Your task to perform on an android device: find photos in the google photos app Image 0: 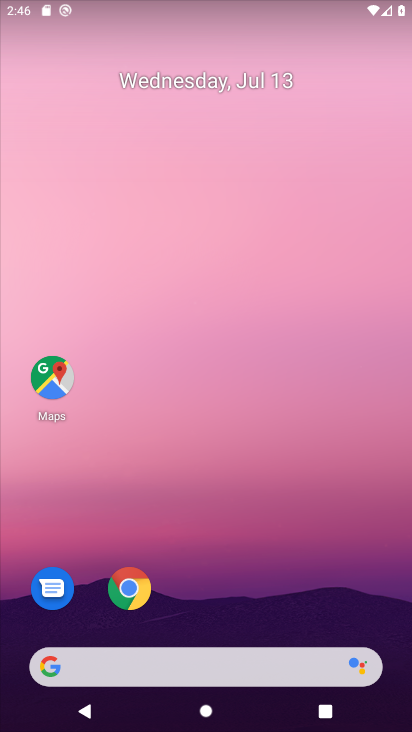
Step 0: drag from (207, 631) to (167, 69)
Your task to perform on an android device: find photos in the google photos app Image 1: 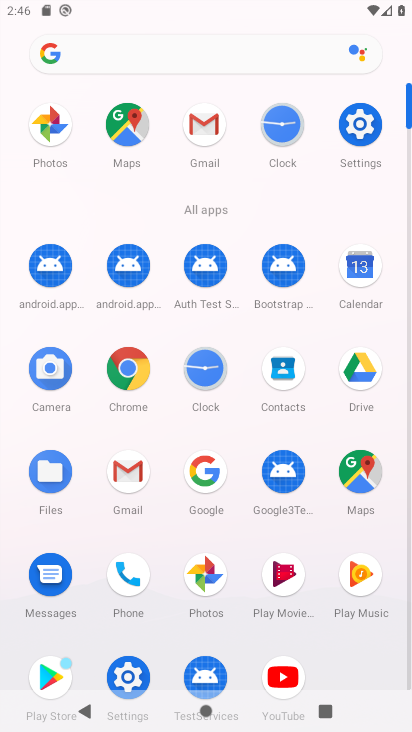
Step 1: click (217, 564)
Your task to perform on an android device: find photos in the google photos app Image 2: 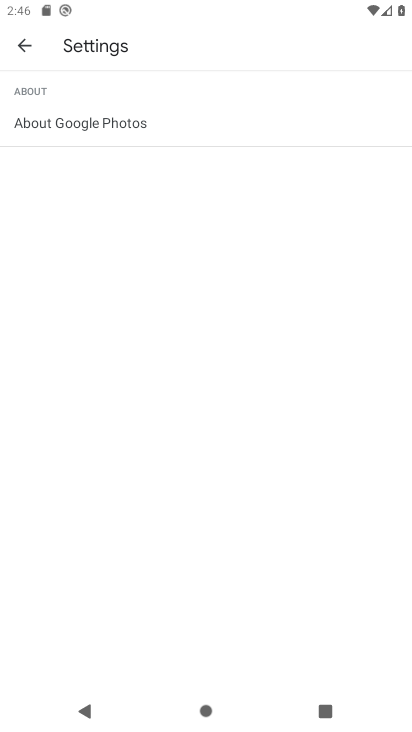
Step 2: click (32, 44)
Your task to perform on an android device: find photos in the google photos app Image 3: 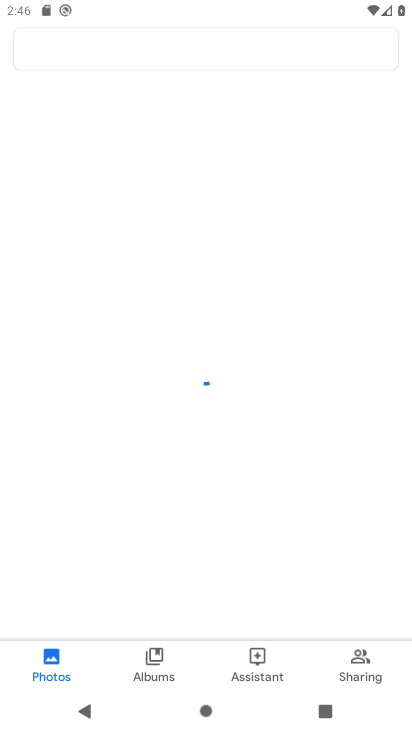
Step 3: drag from (403, 184) to (326, 442)
Your task to perform on an android device: find photos in the google photos app Image 4: 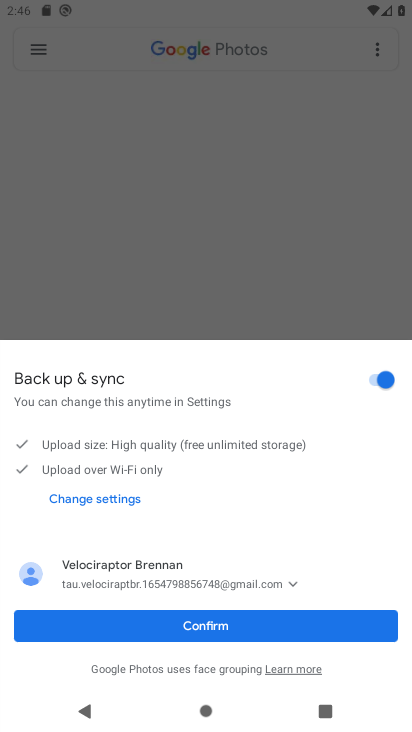
Step 4: click (272, 606)
Your task to perform on an android device: find photos in the google photos app Image 5: 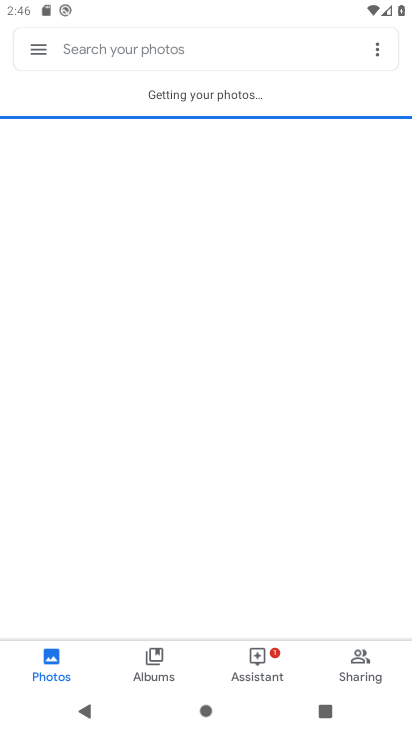
Step 5: task complete